Your task to perform on an android device: Open settings Image 0: 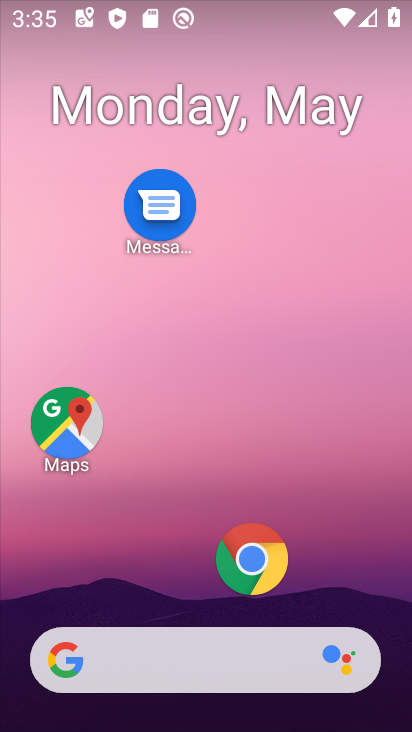
Step 0: drag from (156, 472) to (169, 137)
Your task to perform on an android device: Open settings Image 1: 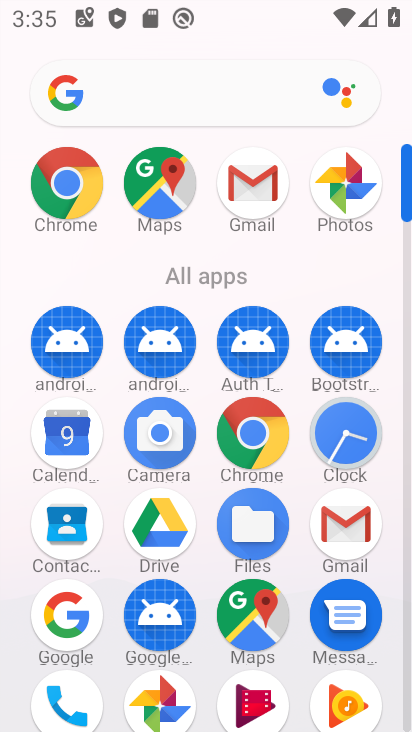
Step 1: drag from (291, 572) to (291, 141)
Your task to perform on an android device: Open settings Image 2: 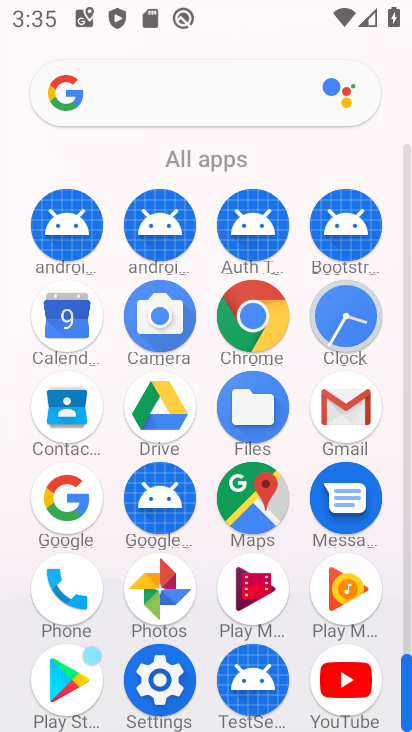
Step 2: click (158, 679)
Your task to perform on an android device: Open settings Image 3: 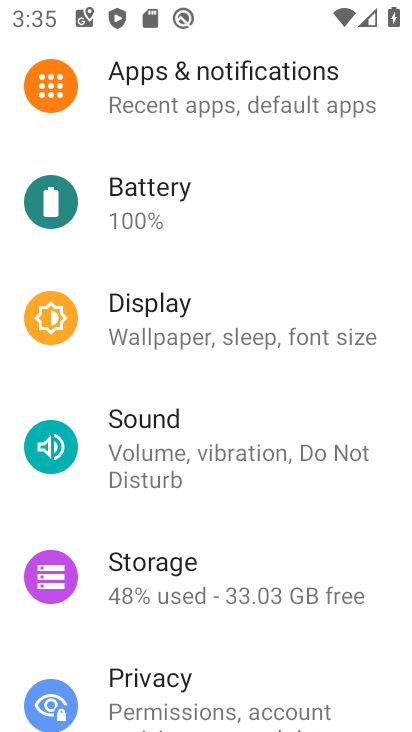
Step 3: task complete